Your task to perform on an android device: Go to location settings Image 0: 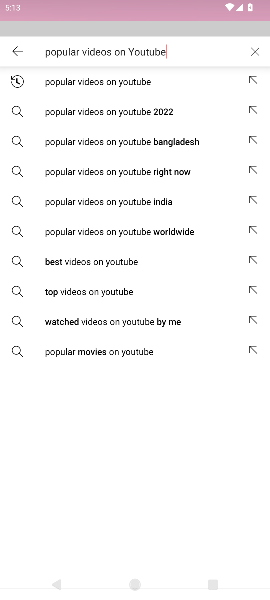
Step 0: click (108, 46)
Your task to perform on an android device: Go to location settings Image 1: 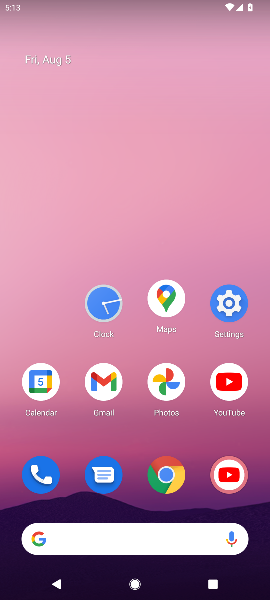
Step 1: click (97, 61)
Your task to perform on an android device: Go to location settings Image 2: 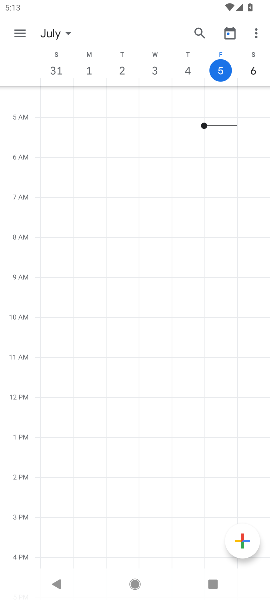
Step 2: press home button
Your task to perform on an android device: Go to location settings Image 3: 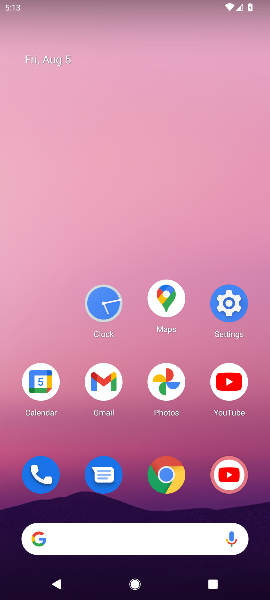
Step 3: click (227, 309)
Your task to perform on an android device: Go to location settings Image 4: 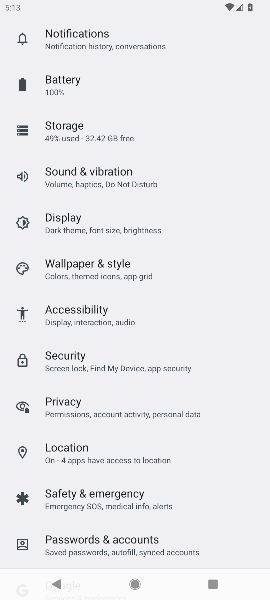
Step 4: click (65, 454)
Your task to perform on an android device: Go to location settings Image 5: 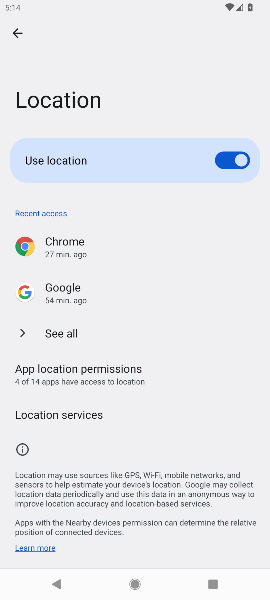
Step 5: task complete